Your task to perform on an android device: toggle show notifications on the lock screen Image 0: 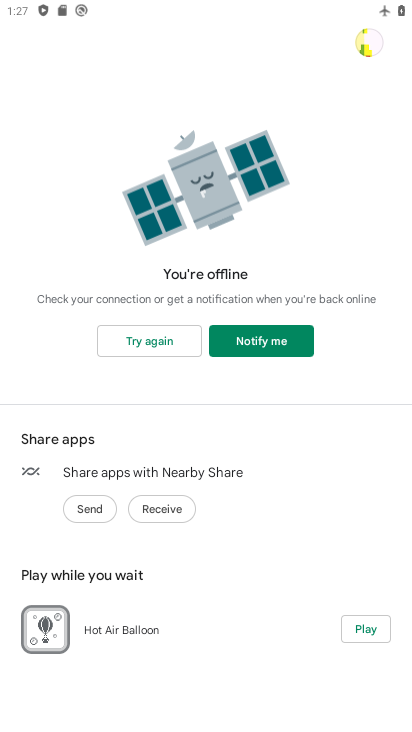
Step 0: press home button
Your task to perform on an android device: toggle show notifications on the lock screen Image 1: 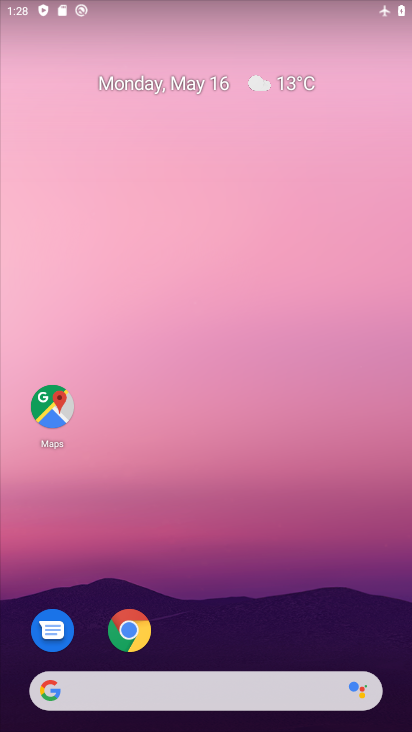
Step 1: drag from (223, 578) to (131, 212)
Your task to perform on an android device: toggle show notifications on the lock screen Image 2: 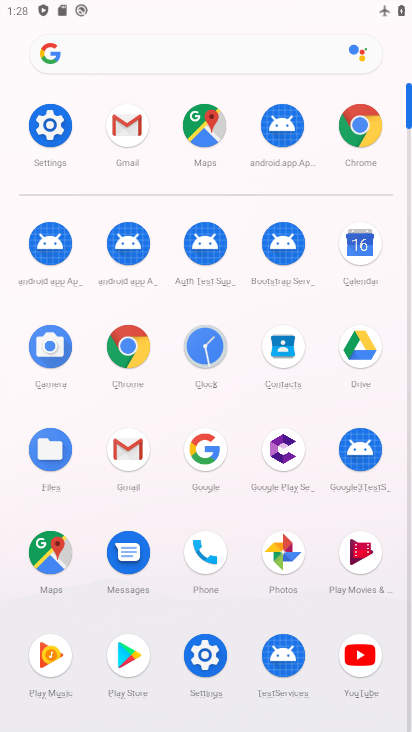
Step 2: click (40, 122)
Your task to perform on an android device: toggle show notifications on the lock screen Image 3: 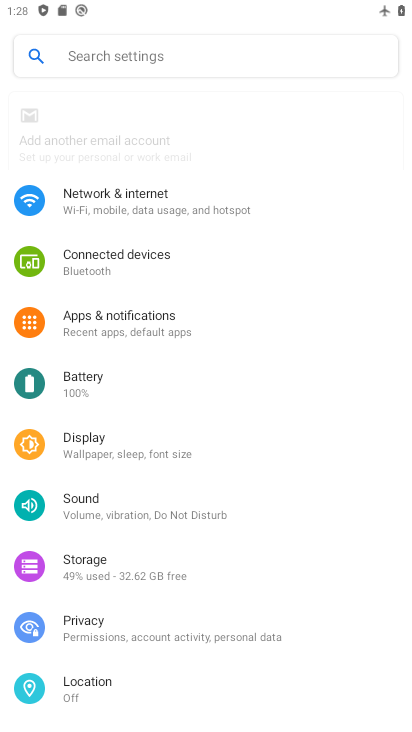
Step 3: click (40, 122)
Your task to perform on an android device: toggle show notifications on the lock screen Image 4: 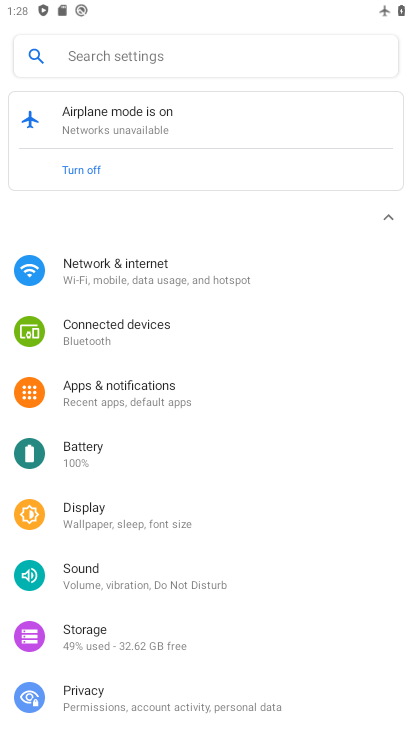
Step 4: click (148, 519)
Your task to perform on an android device: toggle show notifications on the lock screen Image 5: 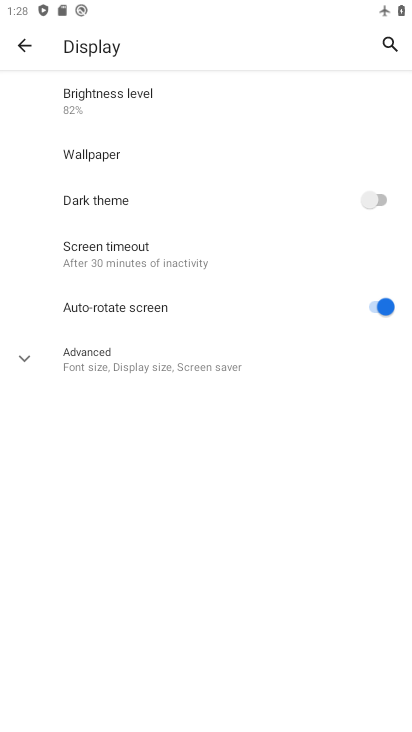
Step 5: press back button
Your task to perform on an android device: toggle show notifications on the lock screen Image 6: 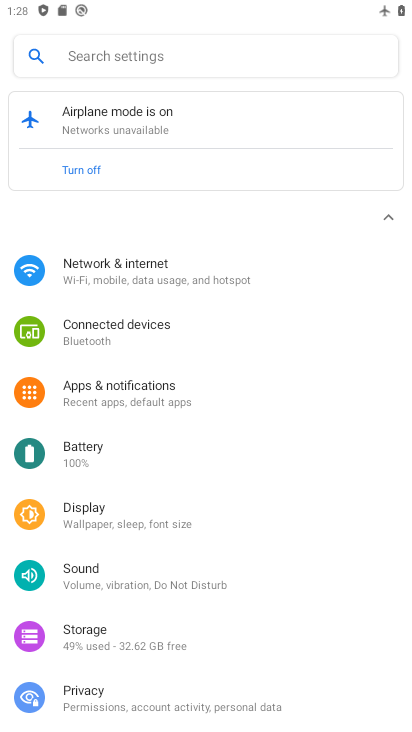
Step 6: click (158, 397)
Your task to perform on an android device: toggle show notifications on the lock screen Image 7: 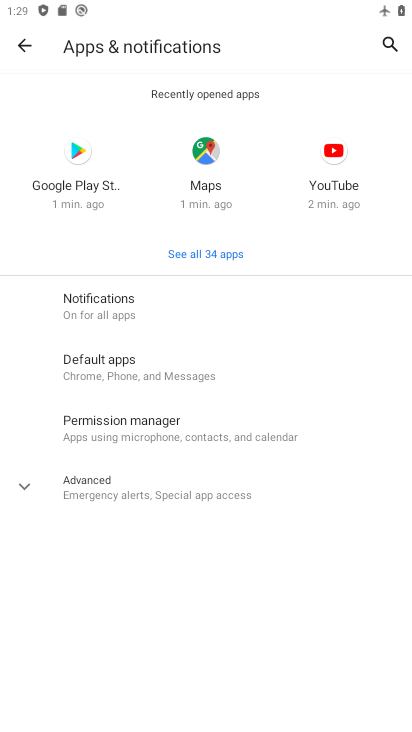
Step 7: click (103, 320)
Your task to perform on an android device: toggle show notifications on the lock screen Image 8: 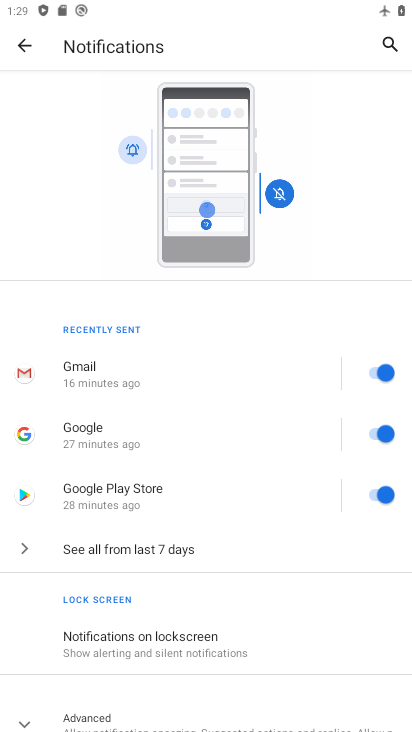
Step 8: click (157, 646)
Your task to perform on an android device: toggle show notifications on the lock screen Image 9: 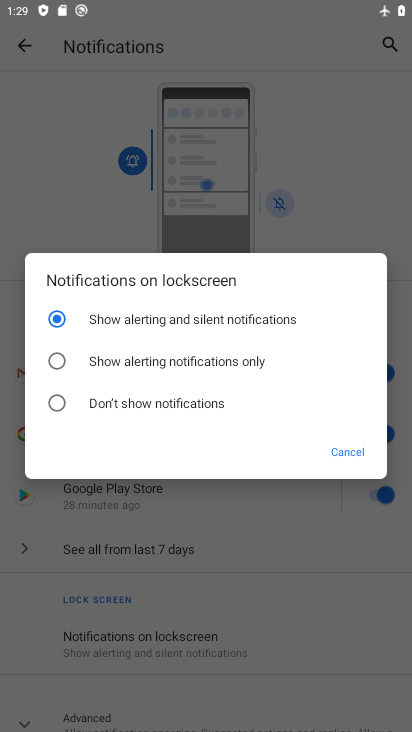
Step 9: click (123, 364)
Your task to perform on an android device: toggle show notifications on the lock screen Image 10: 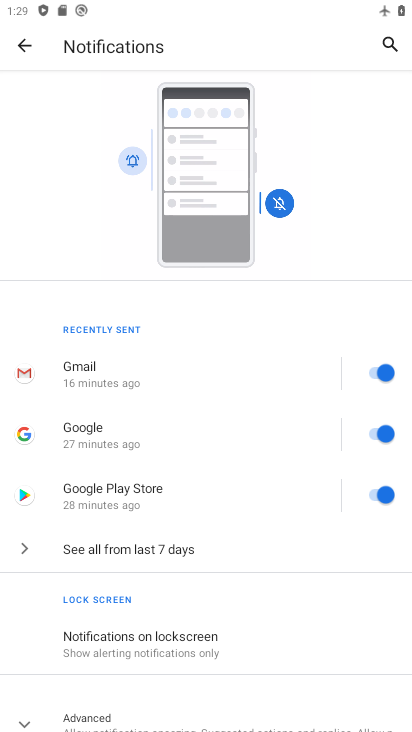
Step 10: task complete